Your task to perform on an android device: Open the map Image 0: 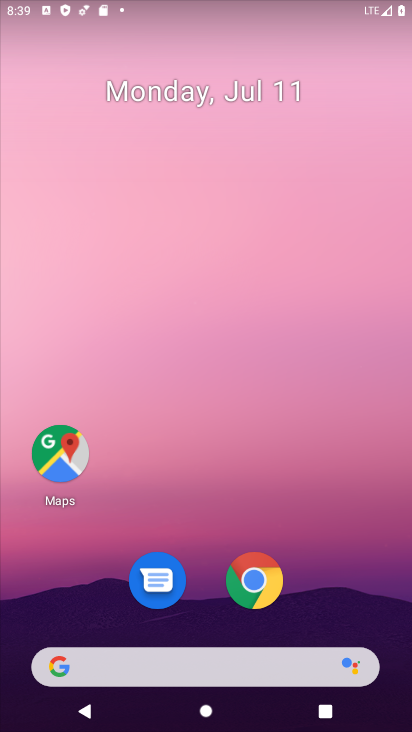
Step 0: drag from (327, 506) to (347, 40)
Your task to perform on an android device: Open the map Image 1: 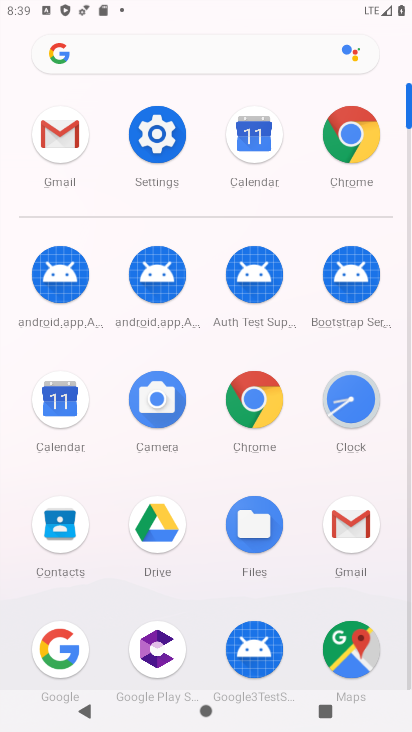
Step 1: click (345, 635)
Your task to perform on an android device: Open the map Image 2: 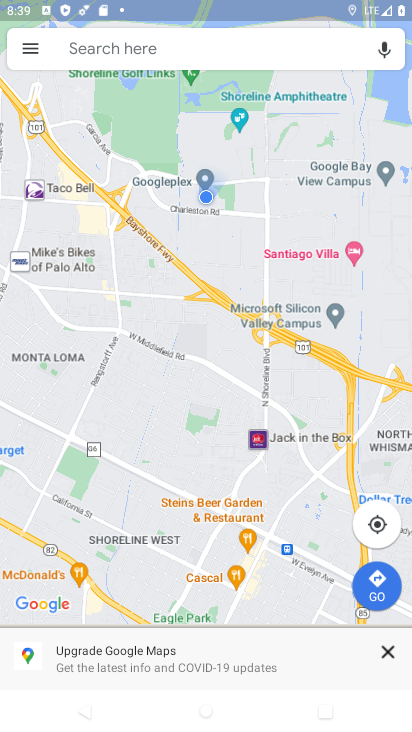
Step 2: task complete